Your task to perform on an android device: search for starred emails in the gmail app Image 0: 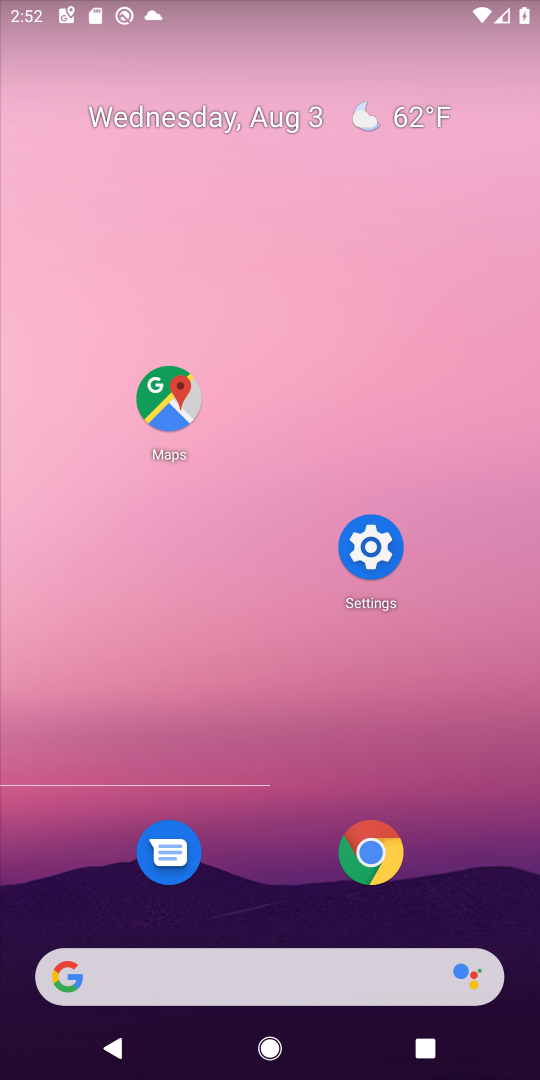
Step 0: press home button
Your task to perform on an android device: search for starred emails in the gmail app Image 1: 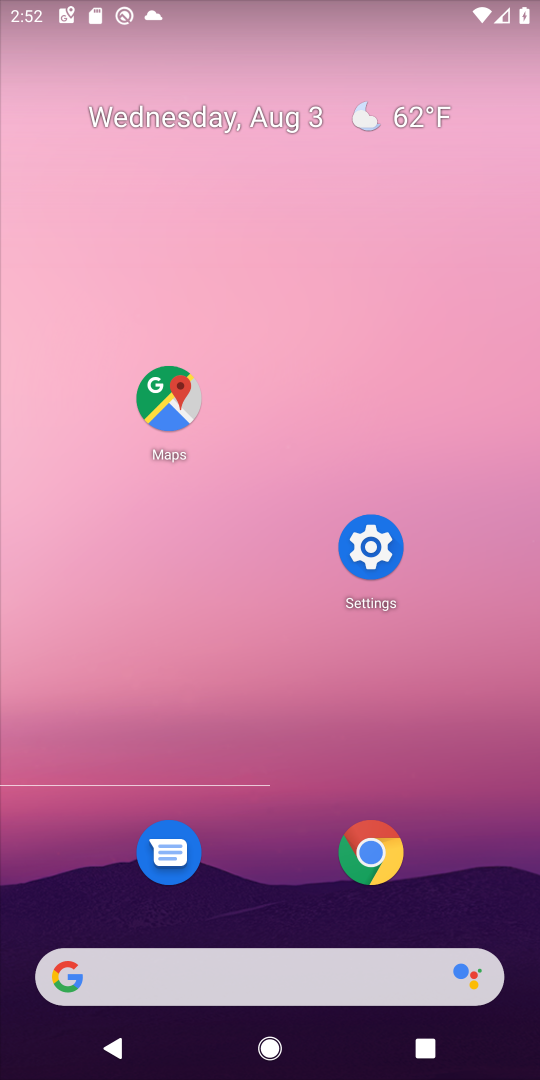
Step 1: drag from (228, 961) to (233, 270)
Your task to perform on an android device: search for starred emails in the gmail app Image 2: 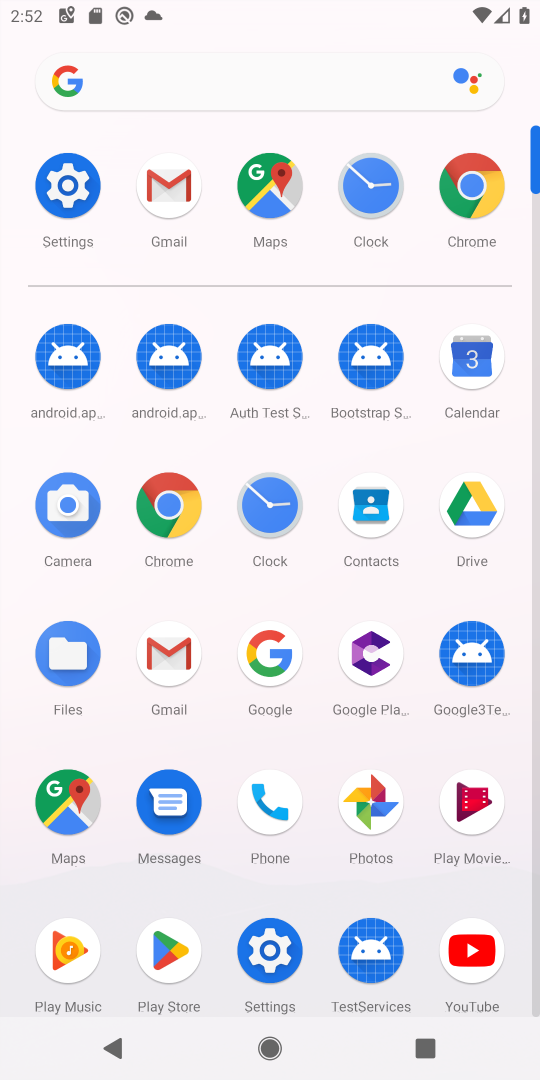
Step 2: click (160, 663)
Your task to perform on an android device: search for starred emails in the gmail app Image 3: 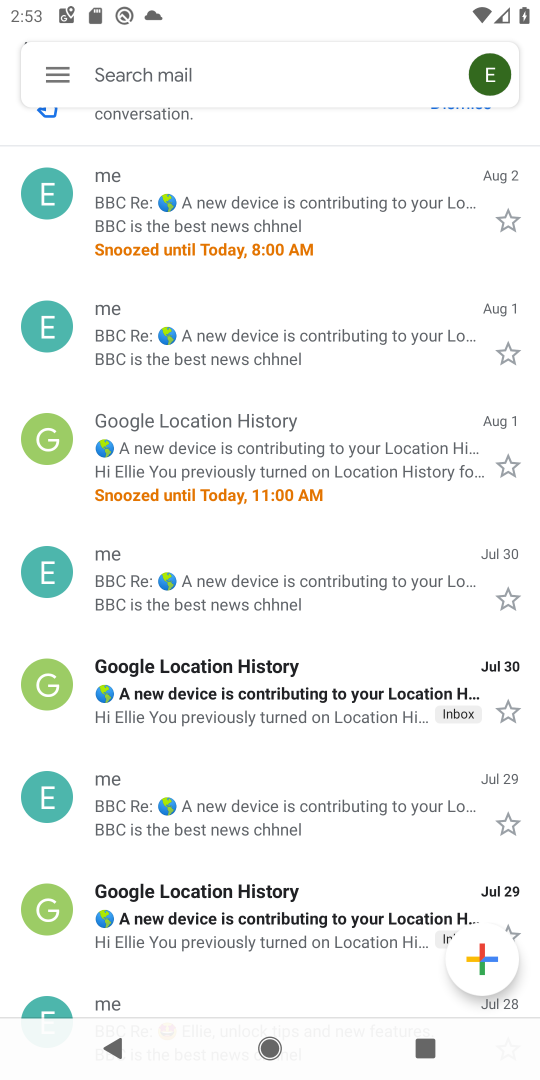
Step 3: click (55, 77)
Your task to perform on an android device: search for starred emails in the gmail app Image 4: 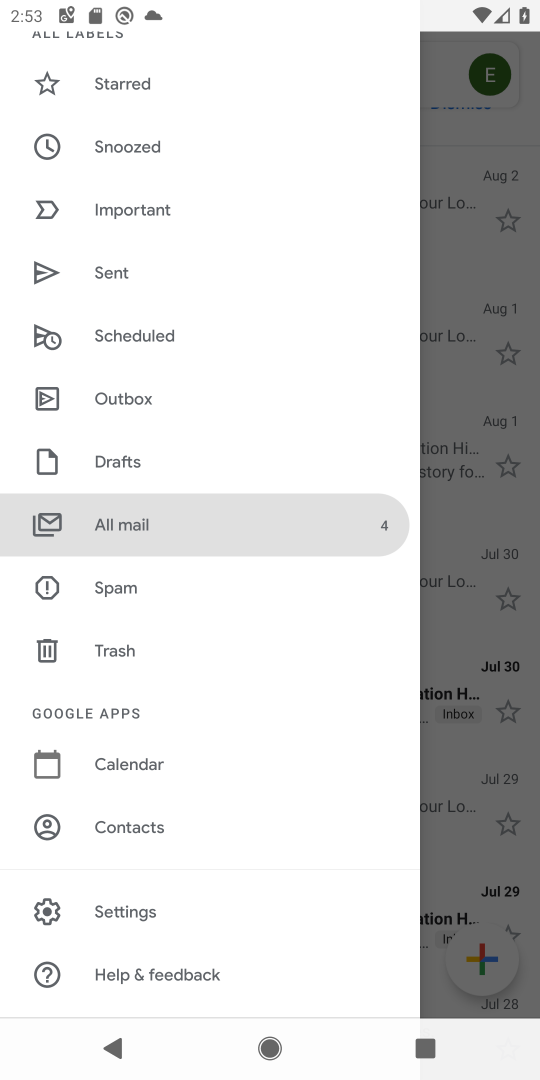
Step 4: click (126, 85)
Your task to perform on an android device: search for starred emails in the gmail app Image 5: 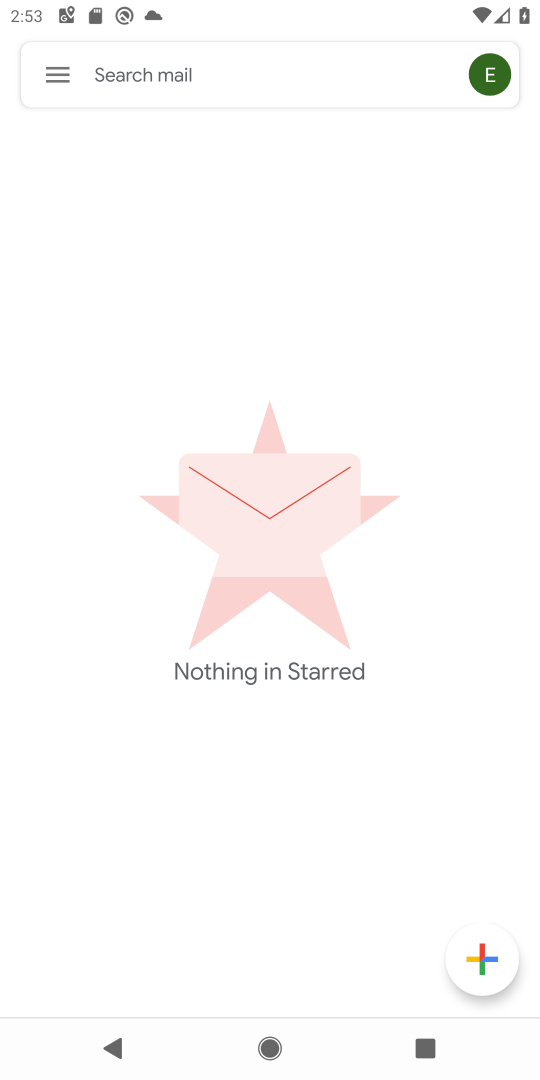
Step 5: task complete